Your task to perform on an android device: Open Maps and search for coffee Image 0: 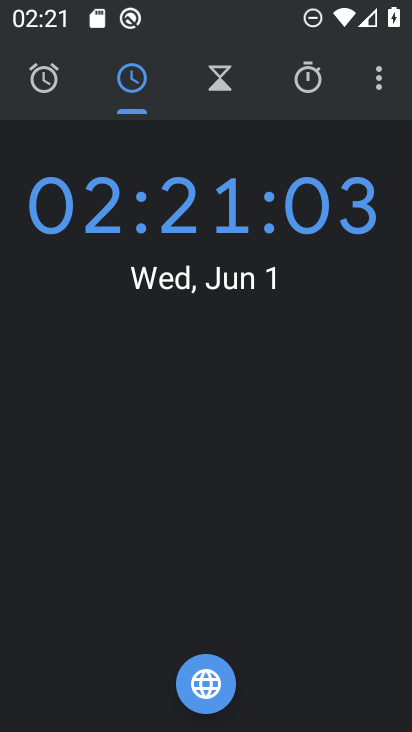
Step 0: press home button
Your task to perform on an android device: Open Maps and search for coffee Image 1: 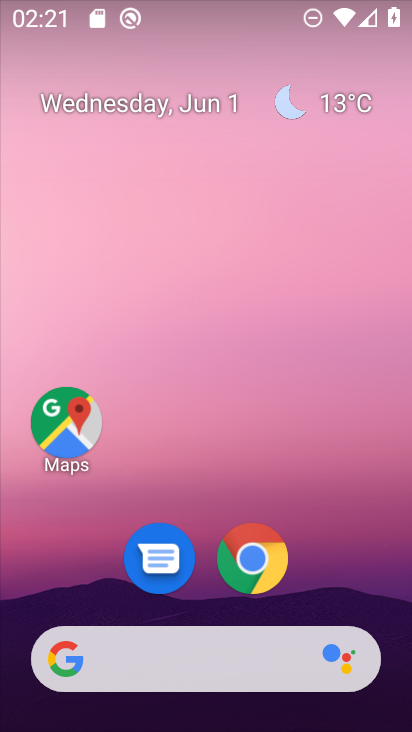
Step 1: click (60, 400)
Your task to perform on an android device: Open Maps and search for coffee Image 2: 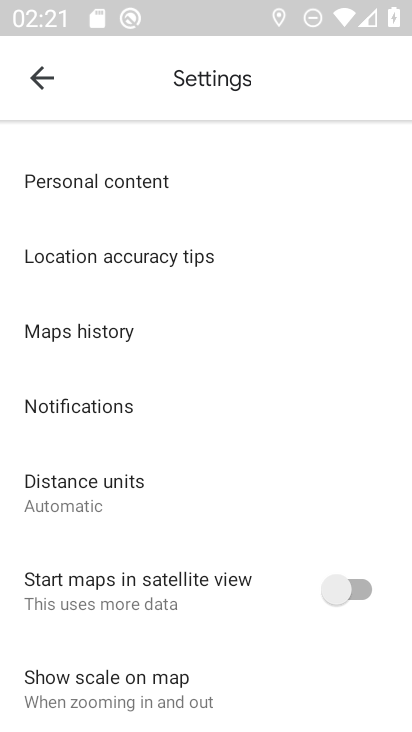
Step 2: click (37, 82)
Your task to perform on an android device: Open Maps and search for coffee Image 3: 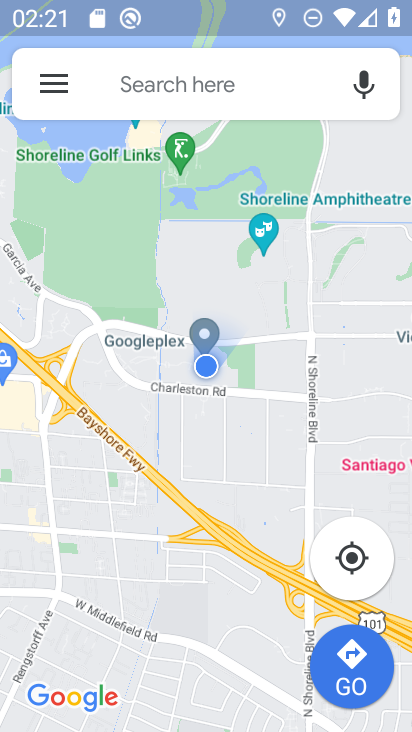
Step 3: click (121, 98)
Your task to perform on an android device: Open Maps and search for coffee Image 4: 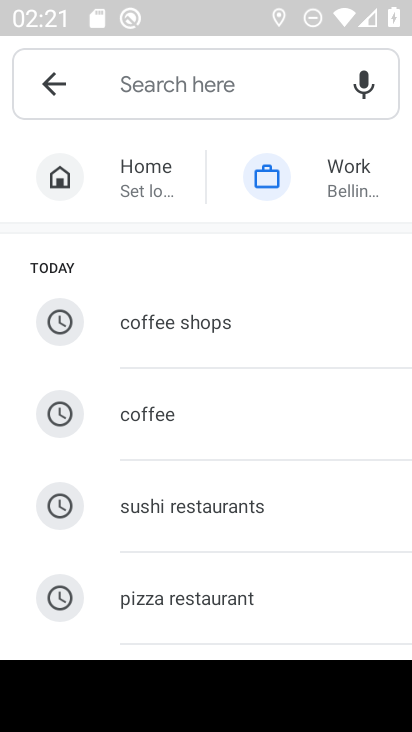
Step 4: type "coffee"
Your task to perform on an android device: Open Maps and search for coffee Image 5: 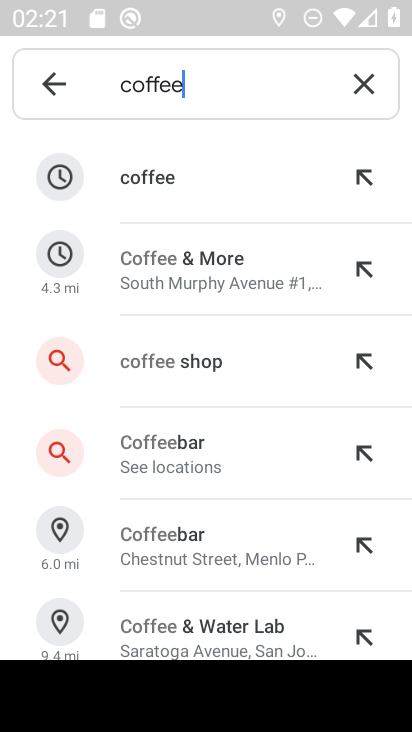
Step 5: click (149, 365)
Your task to perform on an android device: Open Maps and search for coffee Image 6: 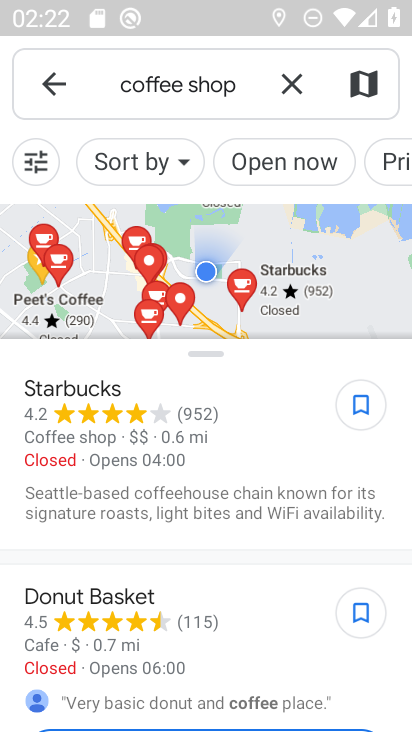
Step 6: task complete